Your task to perform on an android device: uninstall "Lyft - Rideshare, Bikes, Scooters & Transit" Image 0: 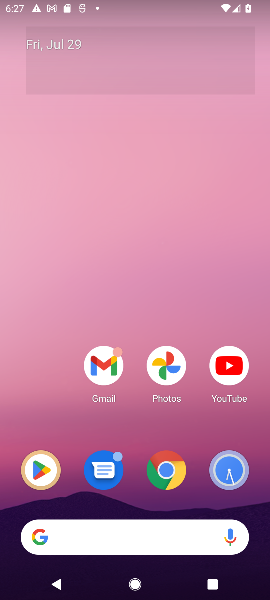
Step 0: drag from (201, 423) to (232, 22)
Your task to perform on an android device: uninstall "Lyft - Rideshare, Bikes, Scooters & Transit" Image 1: 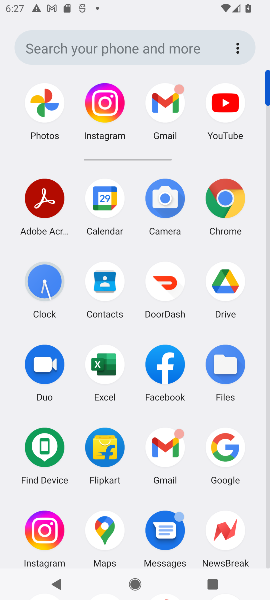
Step 1: drag from (197, 463) to (181, 166)
Your task to perform on an android device: uninstall "Lyft - Rideshare, Bikes, Scooters & Transit" Image 2: 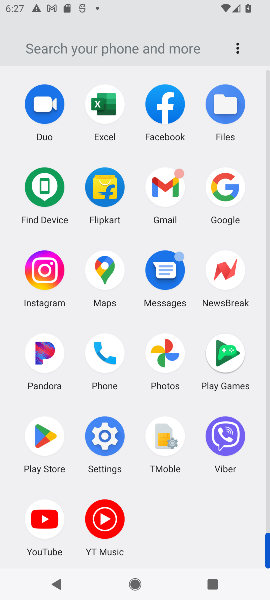
Step 2: drag from (127, 236) to (141, 373)
Your task to perform on an android device: uninstall "Lyft - Rideshare, Bikes, Scooters & Transit" Image 3: 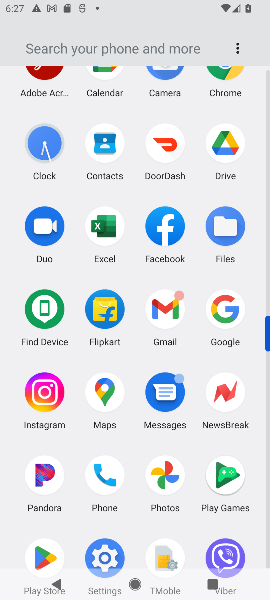
Step 3: click (49, 558)
Your task to perform on an android device: uninstall "Lyft - Rideshare, Bikes, Scooters & Transit" Image 4: 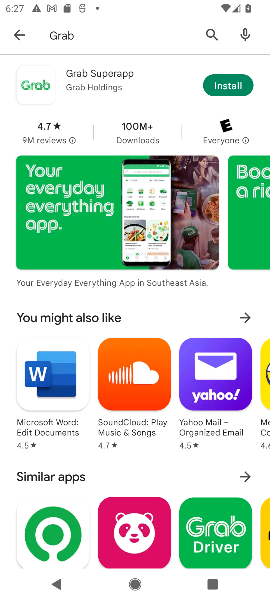
Step 4: click (132, 30)
Your task to perform on an android device: uninstall "Lyft - Rideshare, Bikes, Scooters & Transit" Image 5: 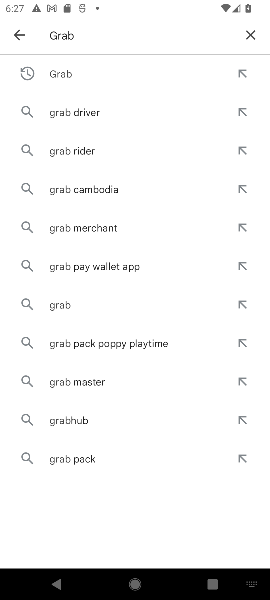
Step 5: click (250, 36)
Your task to perform on an android device: uninstall "Lyft - Rideshare, Bikes, Scooters & Transit" Image 6: 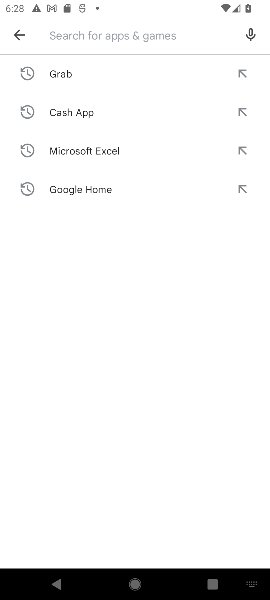
Step 6: type "Lyft"
Your task to perform on an android device: uninstall "Lyft - Rideshare, Bikes, Scooters & Transit" Image 7: 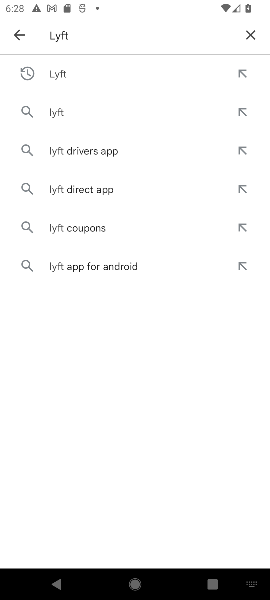
Step 7: press enter
Your task to perform on an android device: uninstall "Lyft - Rideshare, Bikes, Scooters & Transit" Image 8: 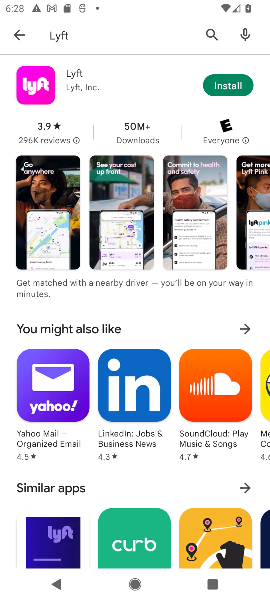
Step 8: task complete